Your task to perform on an android device: Open notification settings Image 0: 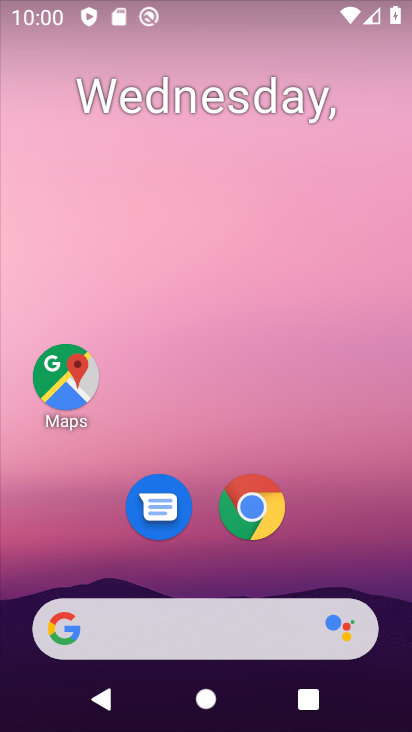
Step 0: drag from (238, 661) to (283, 180)
Your task to perform on an android device: Open notification settings Image 1: 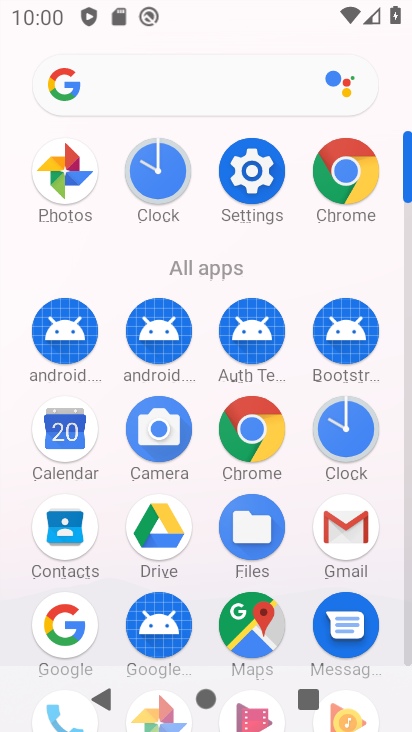
Step 1: click (261, 194)
Your task to perform on an android device: Open notification settings Image 2: 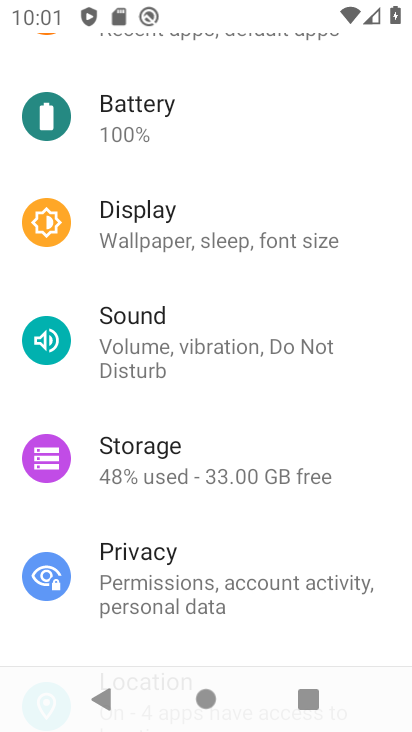
Step 2: drag from (212, 273) to (89, 604)
Your task to perform on an android device: Open notification settings Image 3: 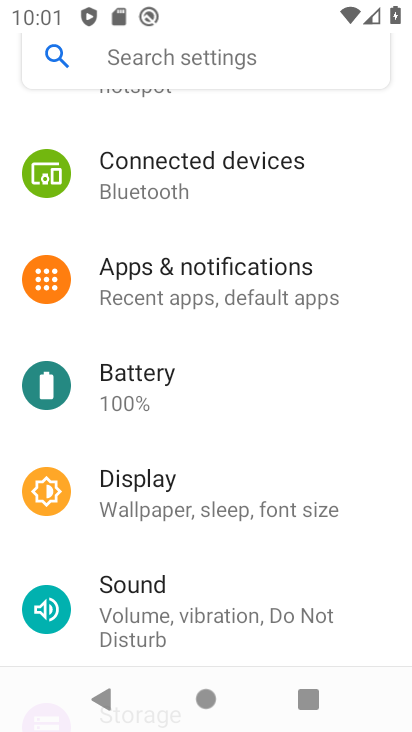
Step 3: drag from (169, 229) to (76, 512)
Your task to perform on an android device: Open notification settings Image 4: 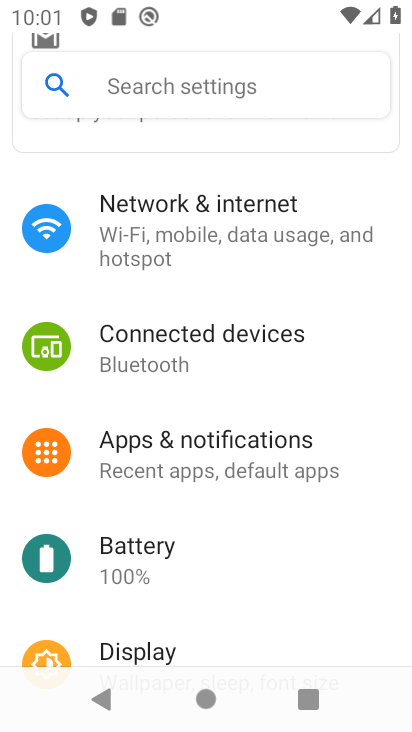
Step 4: click (147, 85)
Your task to perform on an android device: Open notification settings Image 5: 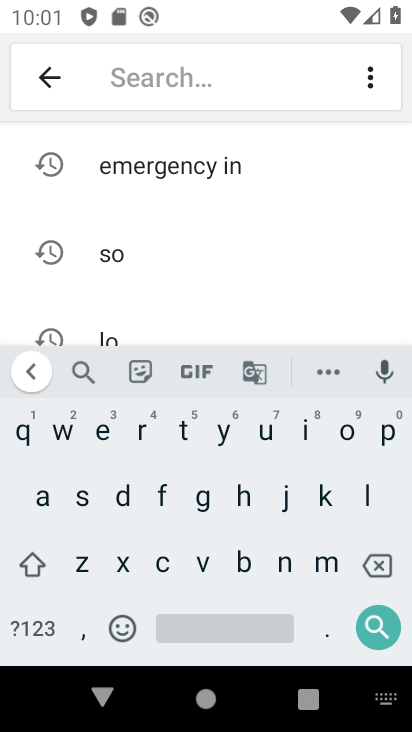
Step 5: click (281, 566)
Your task to perform on an android device: Open notification settings Image 6: 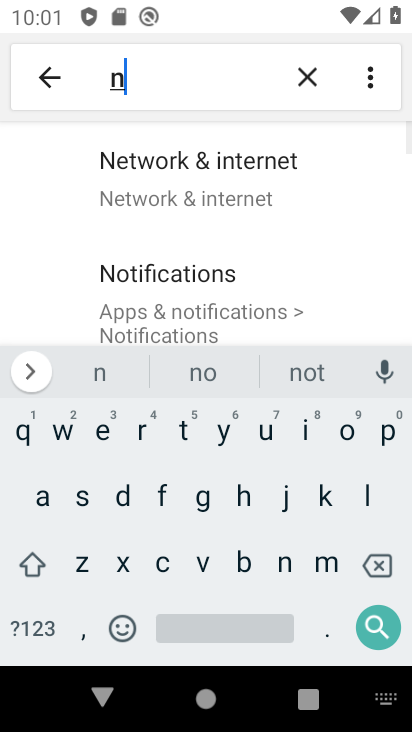
Step 6: click (345, 433)
Your task to perform on an android device: Open notification settings Image 7: 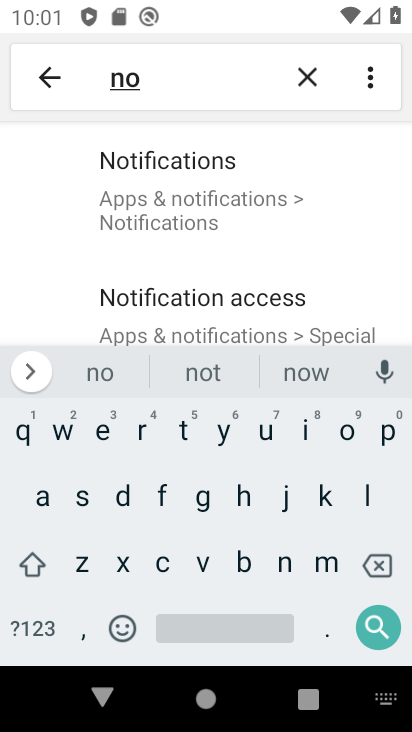
Step 7: click (193, 186)
Your task to perform on an android device: Open notification settings Image 8: 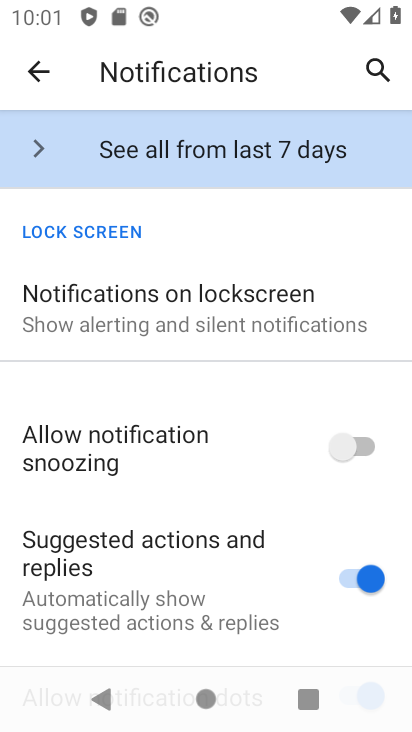
Step 8: click (148, 307)
Your task to perform on an android device: Open notification settings Image 9: 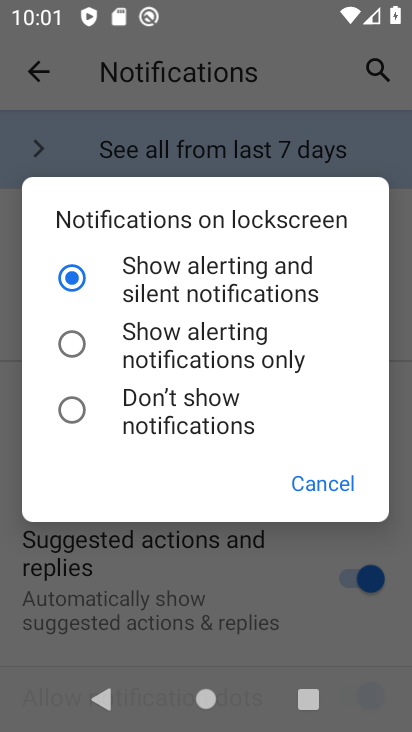
Step 9: task complete